Your task to perform on an android device: What's on my calendar today? Image 0: 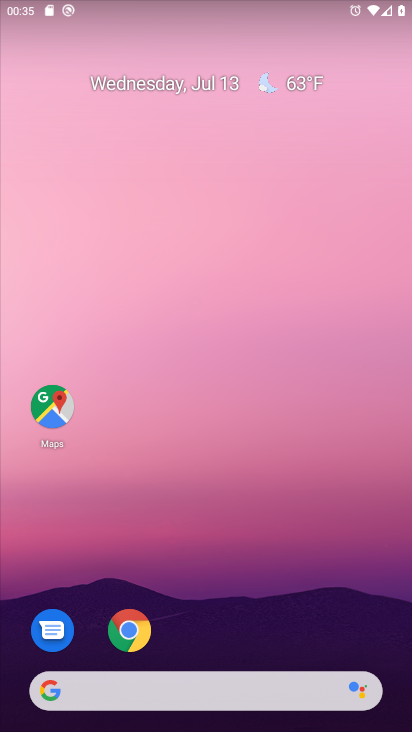
Step 0: drag from (175, 690) to (231, 241)
Your task to perform on an android device: What's on my calendar today? Image 1: 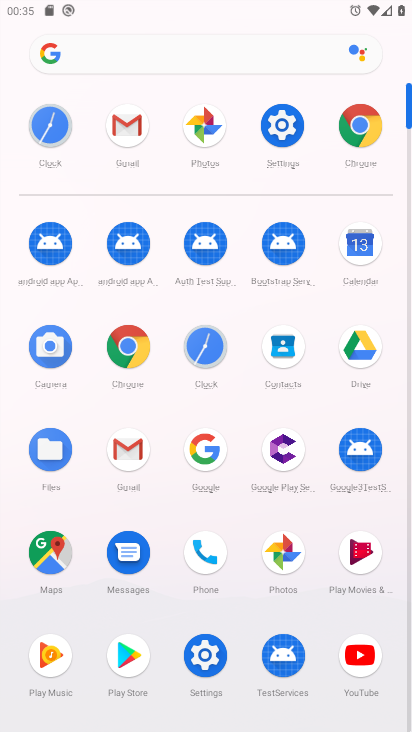
Step 1: click (371, 265)
Your task to perform on an android device: What's on my calendar today? Image 2: 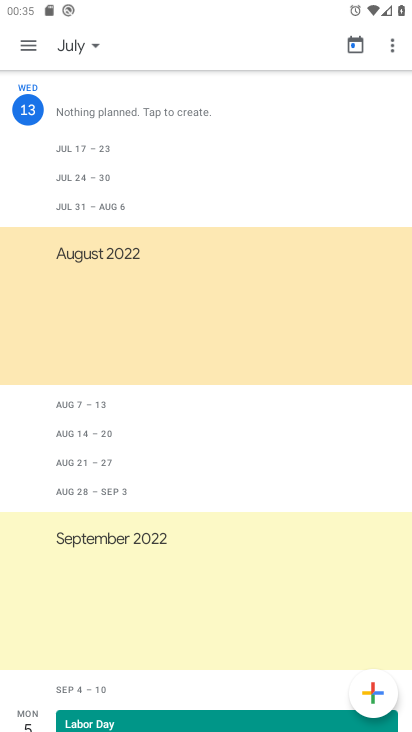
Step 2: click (37, 62)
Your task to perform on an android device: What's on my calendar today? Image 3: 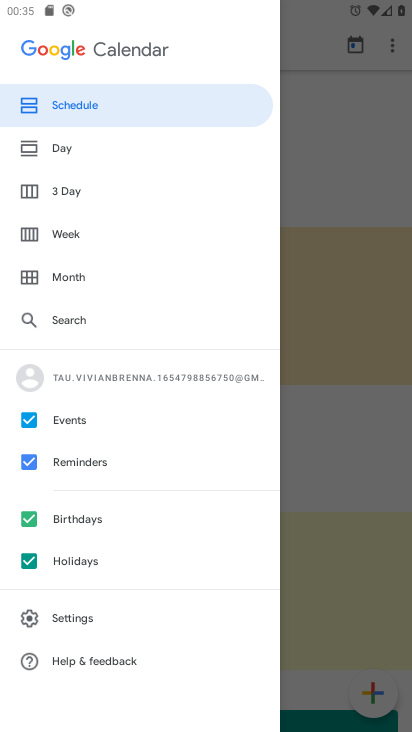
Step 3: click (75, 102)
Your task to perform on an android device: What's on my calendar today? Image 4: 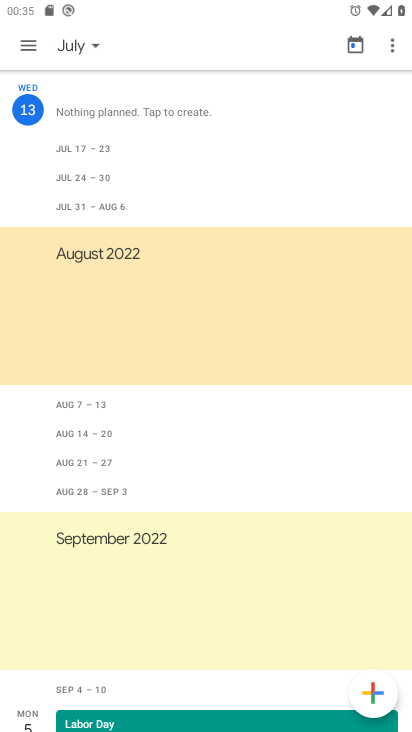
Step 4: task complete